Your task to perform on an android device: Open Google Chrome and click the shortcut for Amazon.com Image 0: 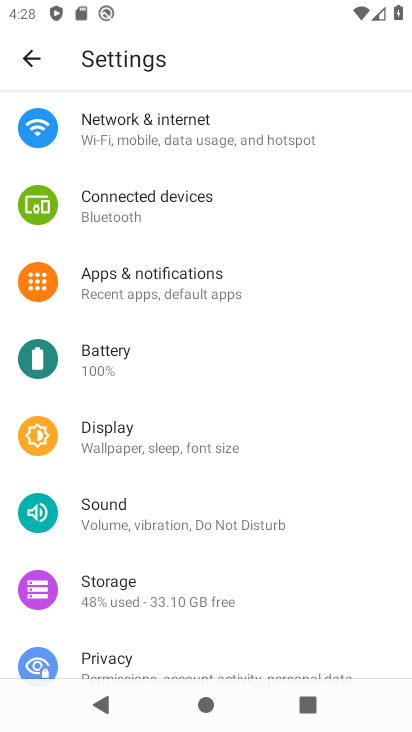
Step 0: press home button
Your task to perform on an android device: Open Google Chrome and click the shortcut for Amazon.com Image 1: 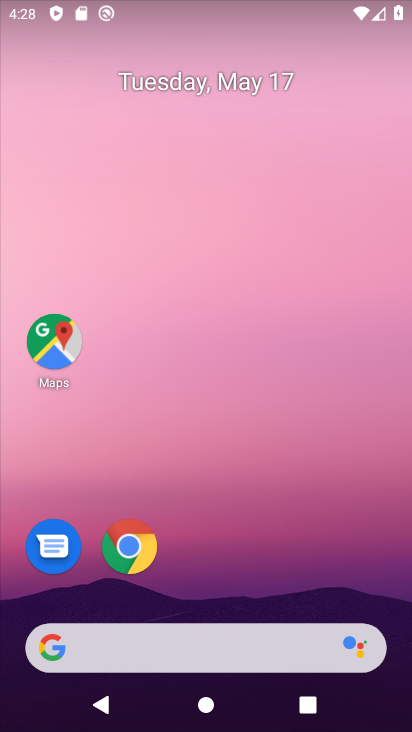
Step 1: click (137, 564)
Your task to perform on an android device: Open Google Chrome and click the shortcut for Amazon.com Image 2: 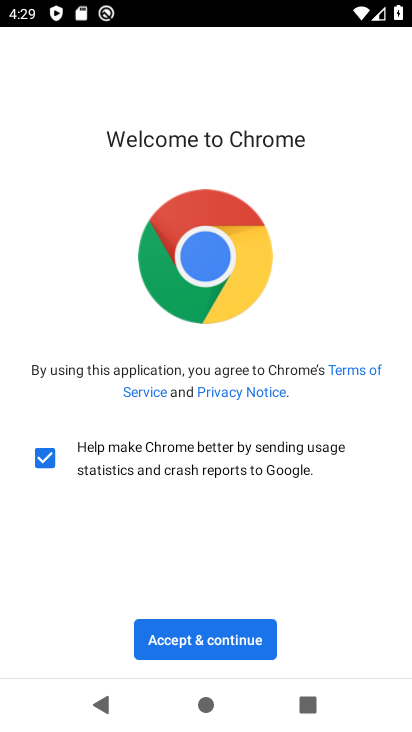
Step 2: click (250, 655)
Your task to perform on an android device: Open Google Chrome and click the shortcut for Amazon.com Image 3: 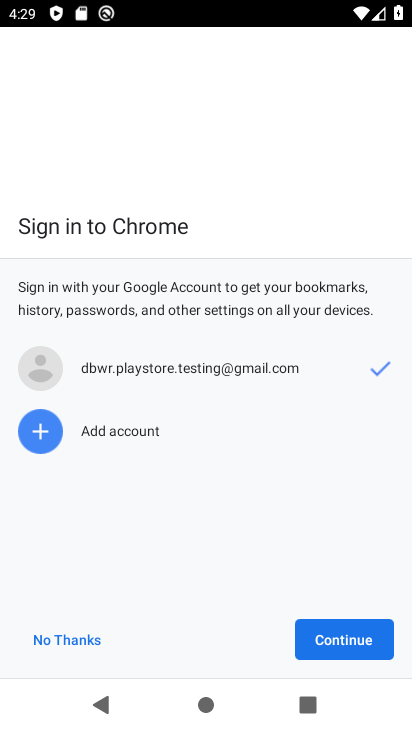
Step 3: click (323, 628)
Your task to perform on an android device: Open Google Chrome and click the shortcut for Amazon.com Image 4: 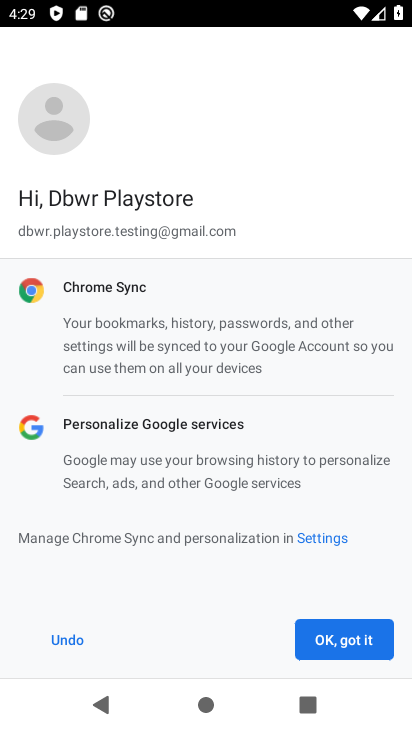
Step 4: click (334, 637)
Your task to perform on an android device: Open Google Chrome and click the shortcut for Amazon.com Image 5: 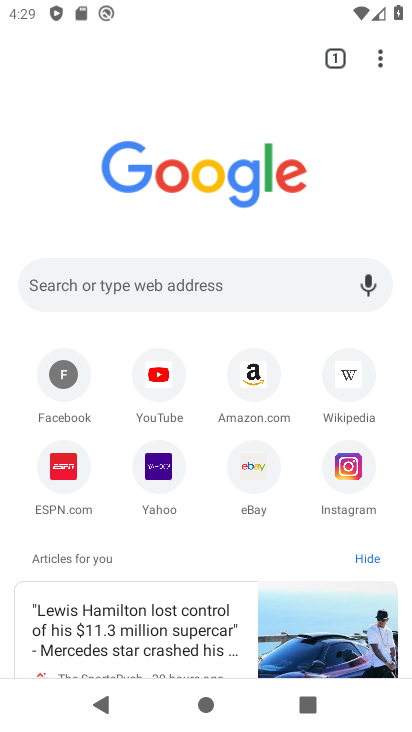
Step 5: click (263, 376)
Your task to perform on an android device: Open Google Chrome and click the shortcut for Amazon.com Image 6: 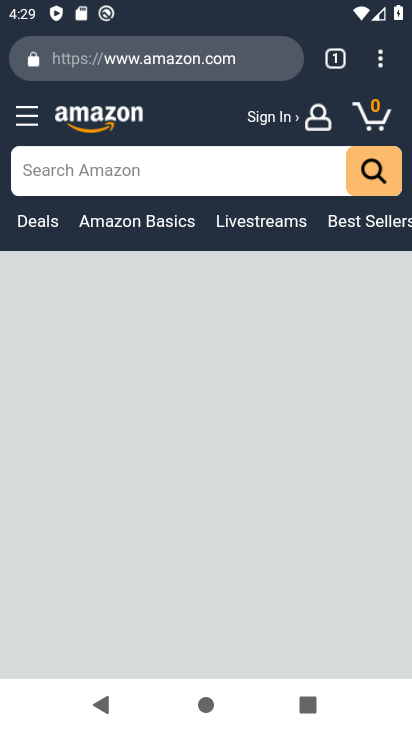
Step 6: task complete